Your task to perform on an android device: set default search engine in the chrome app Image 0: 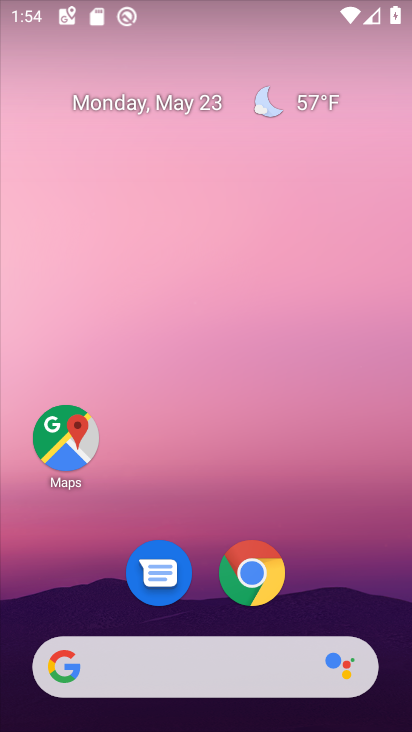
Step 0: click (249, 576)
Your task to perform on an android device: set default search engine in the chrome app Image 1: 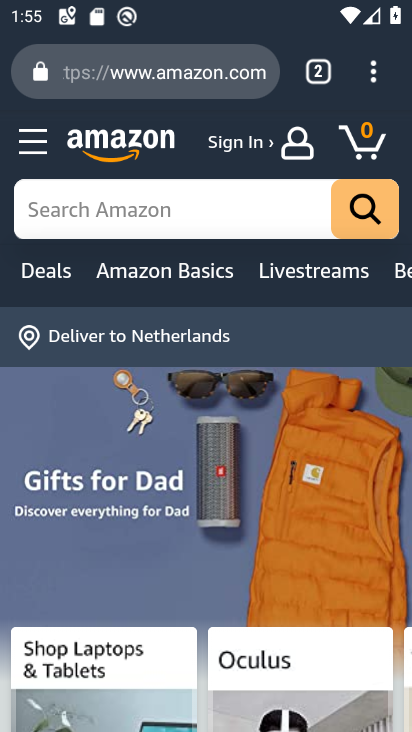
Step 1: click (378, 73)
Your task to perform on an android device: set default search engine in the chrome app Image 2: 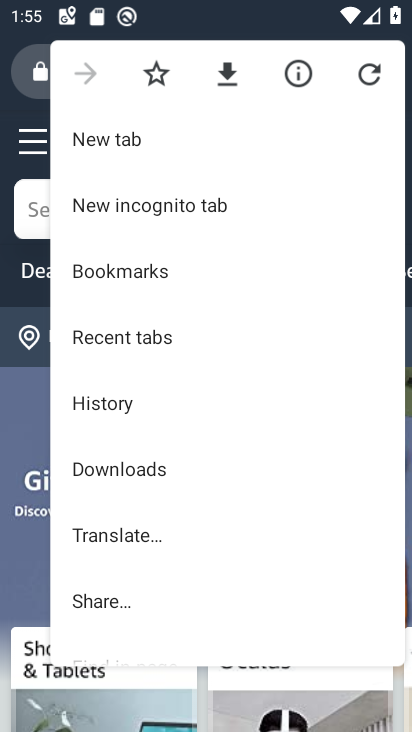
Step 2: drag from (188, 557) to (128, 204)
Your task to perform on an android device: set default search engine in the chrome app Image 3: 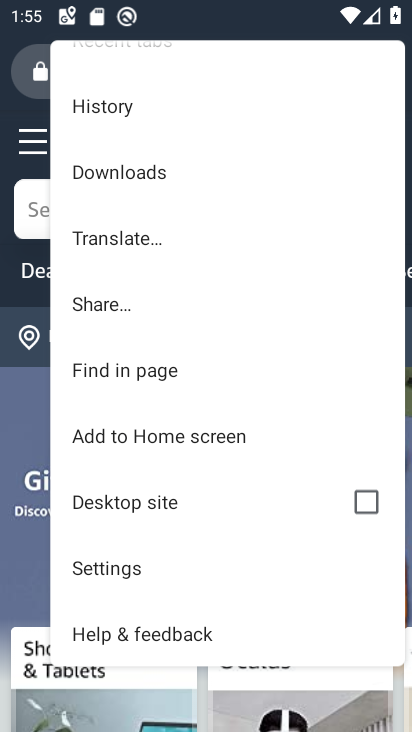
Step 3: drag from (189, 531) to (147, 181)
Your task to perform on an android device: set default search engine in the chrome app Image 4: 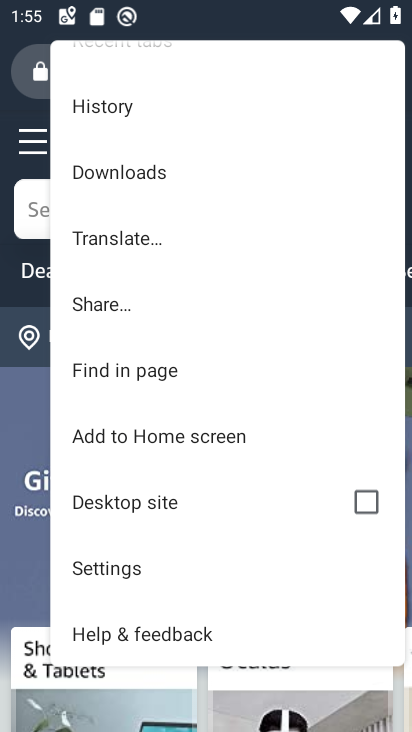
Step 4: click (116, 566)
Your task to perform on an android device: set default search engine in the chrome app Image 5: 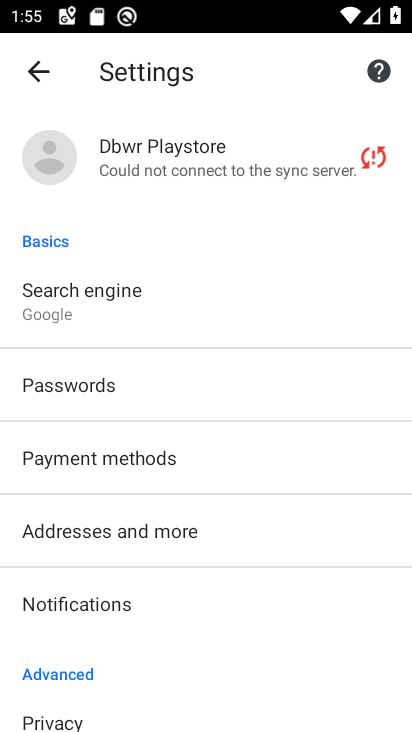
Step 5: drag from (161, 590) to (155, 247)
Your task to perform on an android device: set default search engine in the chrome app Image 6: 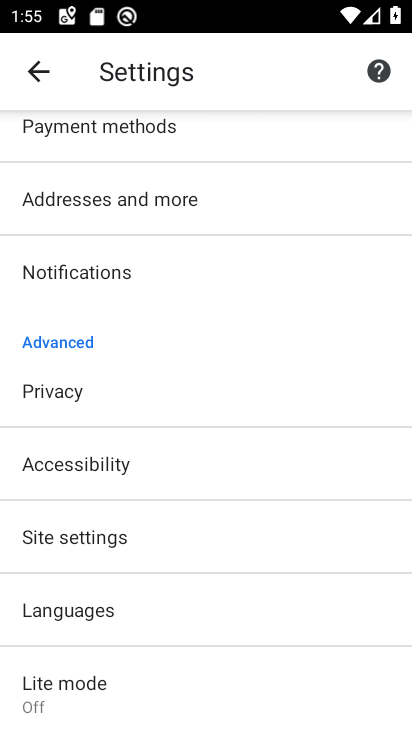
Step 6: drag from (182, 569) to (154, 265)
Your task to perform on an android device: set default search engine in the chrome app Image 7: 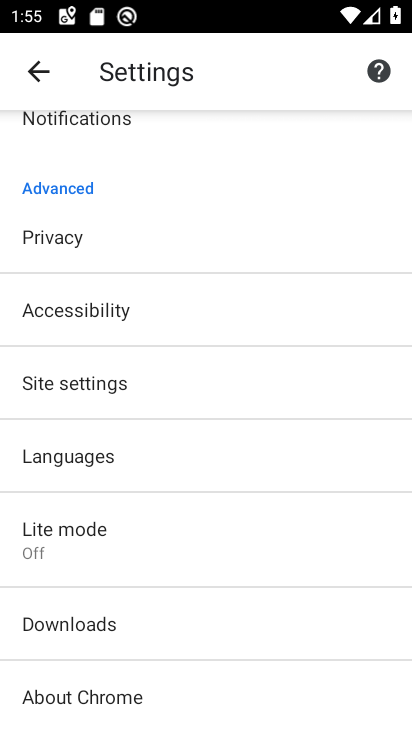
Step 7: drag from (96, 562) to (84, 258)
Your task to perform on an android device: set default search engine in the chrome app Image 8: 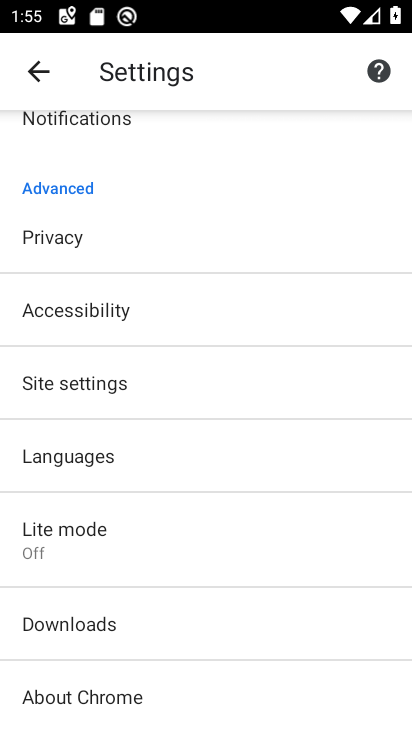
Step 8: click (137, 237)
Your task to perform on an android device: set default search engine in the chrome app Image 9: 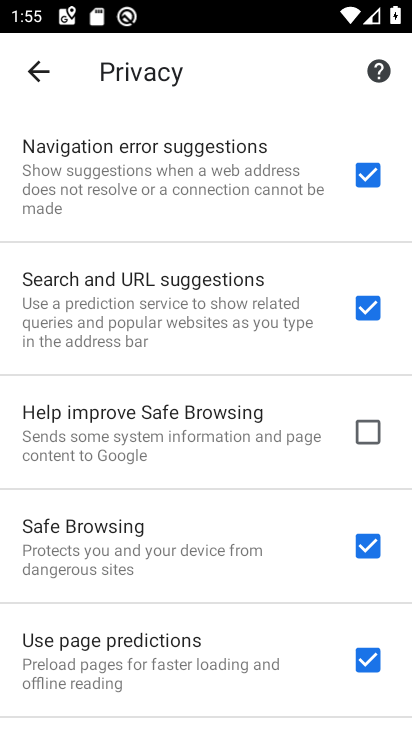
Step 9: drag from (119, 460) to (110, 220)
Your task to perform on an android device: set default search engine in the chrome app Image 10: 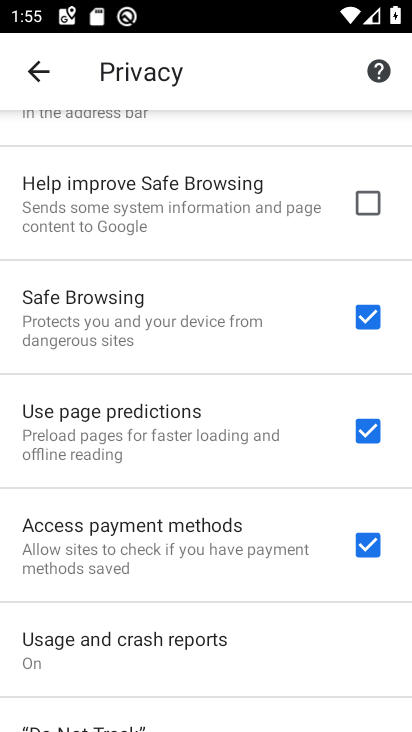
Step 10: drag from (137, 515) to (111, 183)
Your task to perform on an android device: set default search engine in the chrome app Image 11: 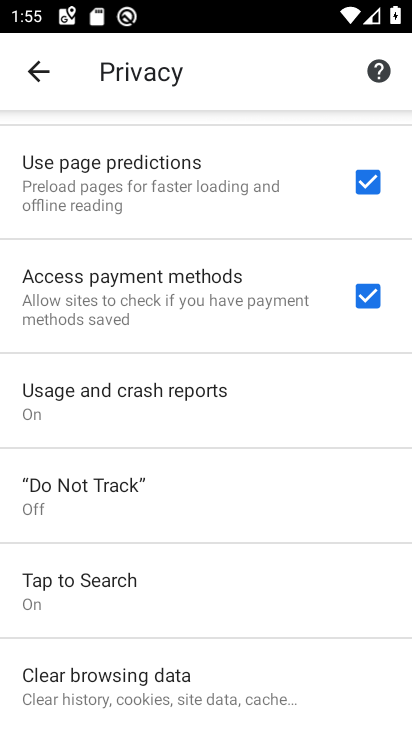
Step 11: drag from (100, 503) to (70, 143)
Your task to perform on an android device: set default search engine in the chrome app Image 12: 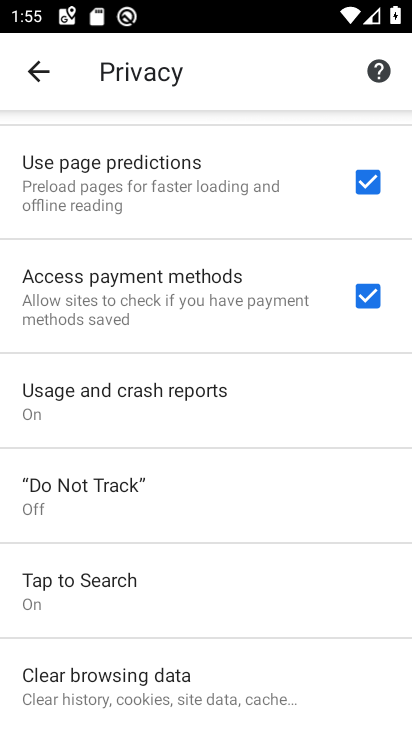
Step 12: drag from (75, 484) to (65, 427)
Your task to perform on an android device: set default search engine in the chrome app Image 13: 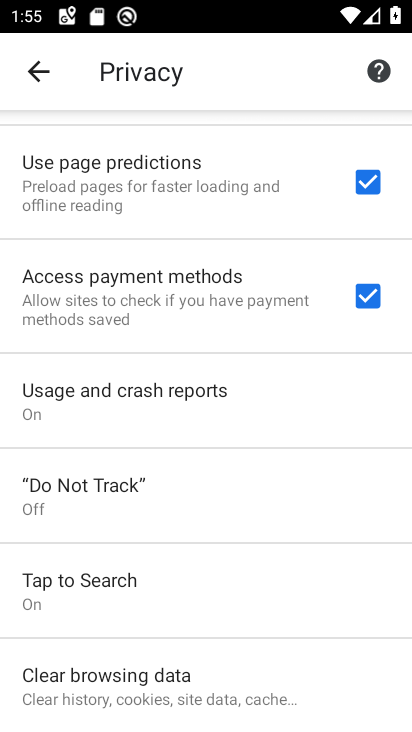
Step 13: press back button
Your task to perform on an android device: set default search engine in the chrome app Image 14: 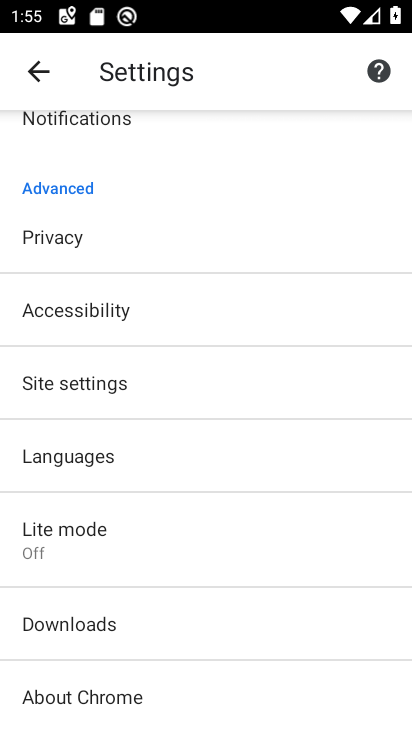
Step 14: click (161, 703)
Your task to perform on an android device: set default search engine in the chrome app Image 15: 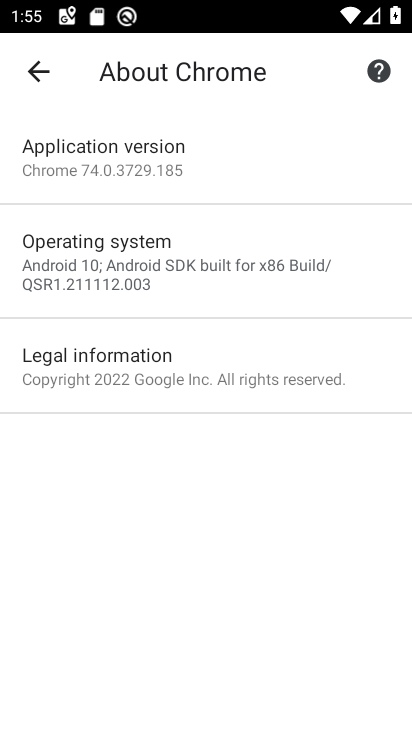
Step 15: press back button
Your task to perform on an android device: set default search engine in the chrome app Image 16: 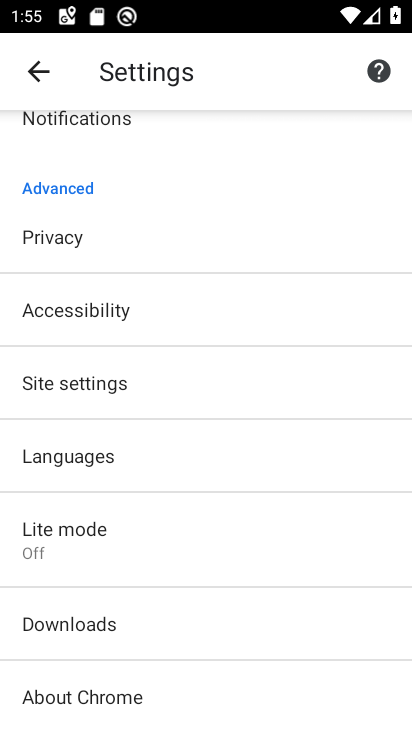
Step 16: click (98, 299)
Your task to perform on an android device: set default search engine in the chrome app Image 17: 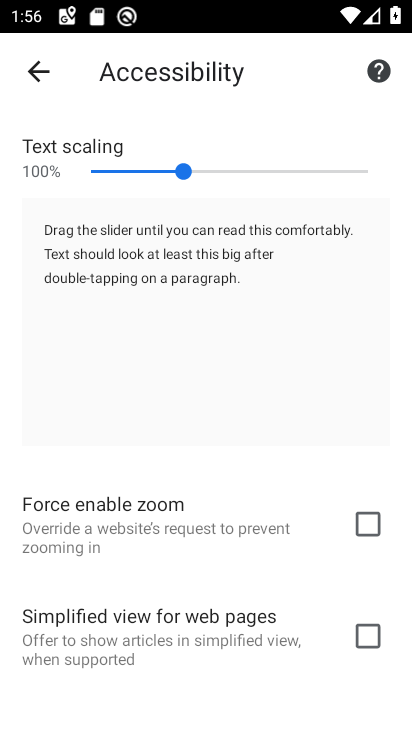
Step 17: drag from (76, 559) to (50, 226)
Your task to perform on an android device: set default search engine in the chrome app Image 18: 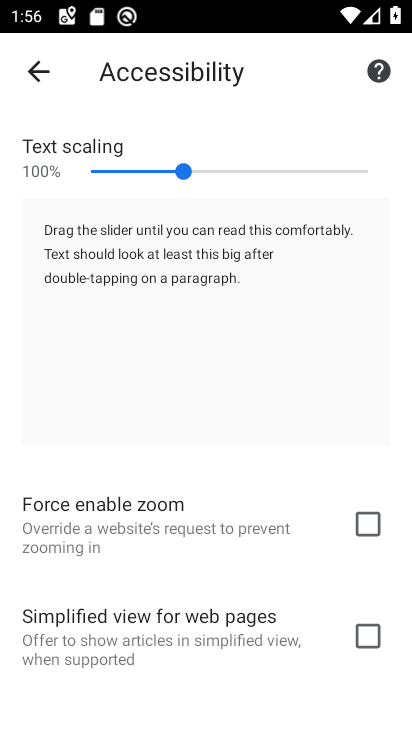
Step 18: press back button
Your task to perform on an android device: set default search engine in the chrome app Image 19: 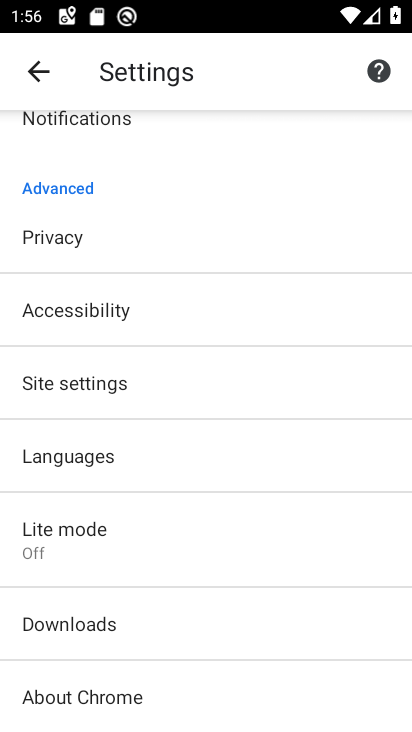
Step 19: click (160, 224)
Your task to perform on an android device: set default search engine in the chrome app Image 20: 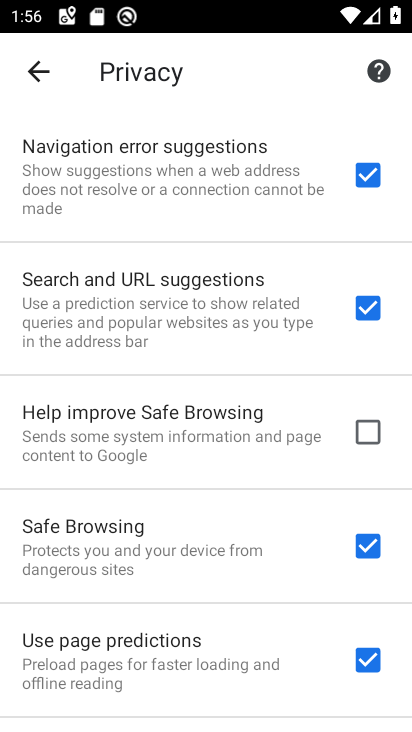
Step 20: task complete